Your task to perform on an android device: Turn on the flashlight Image 0: 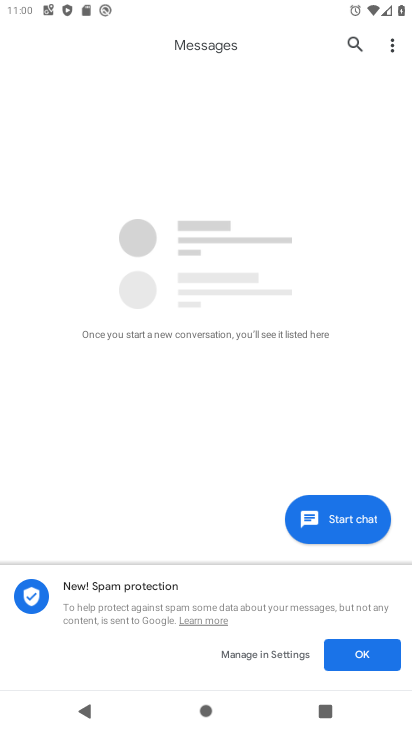
Step 0: drag from (239, 0) to (302, 461)
Your task to perform on an android device: Turn on the flashlight Image 1: 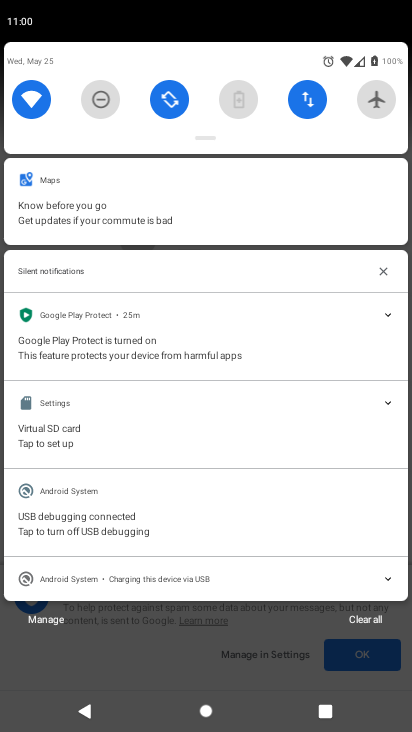
Step 1: task complete